Your task to perform on an android device: Open calendar and show me the fourth week of next month Image 0: 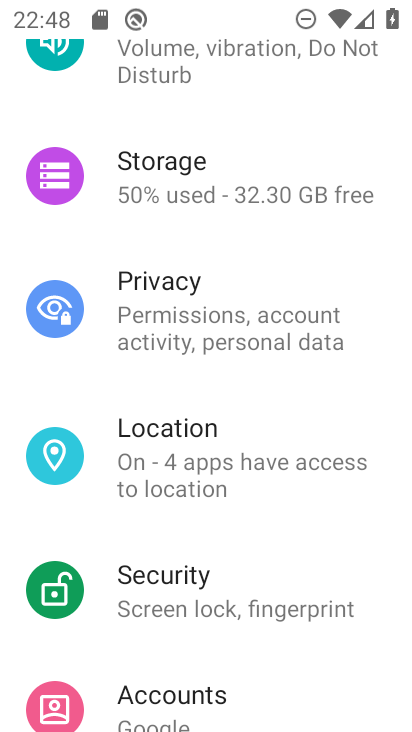
Step 0: press home button
Your task to perform on an android device: Open calendar and show me the fourth week of next month Image 1: 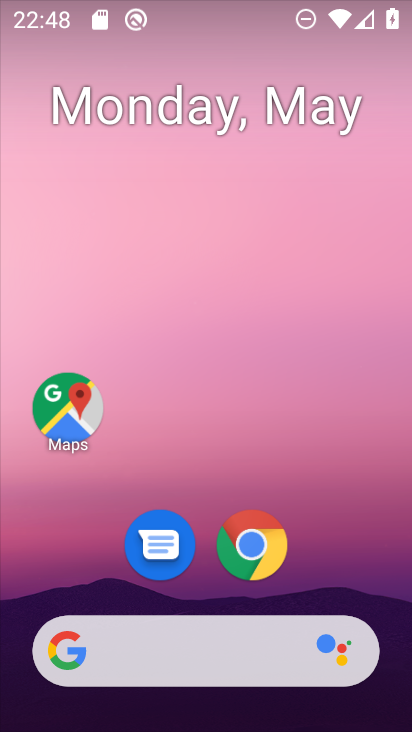
Step 1: drag from (331, 532) to (225, 105)
Your task to perform on an android device: Open calendar and show me the fourth week of next month Image 2: 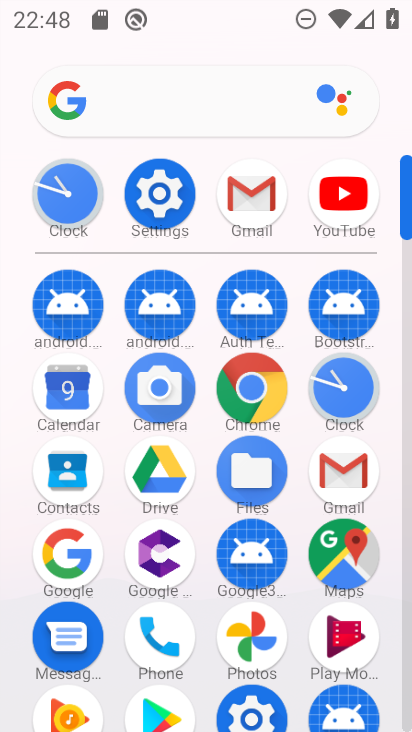
Step 2: click (60, 388)
Your task to perform on an android device: Open calendar and show me the fourth week of next month Image 3: 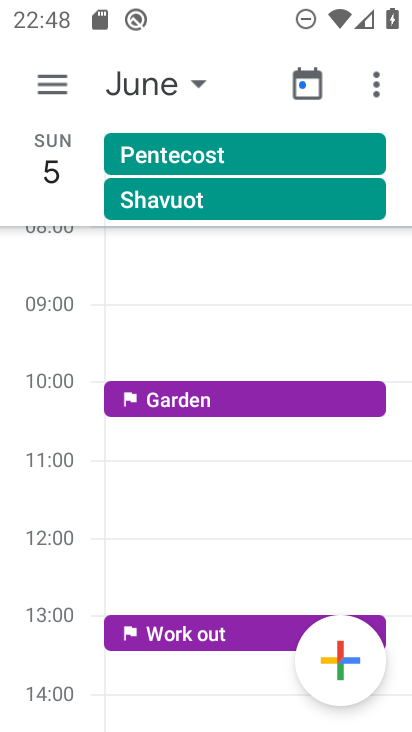
Step 3: click (54, 71)
Your task to perform on an android device: Open calendar and show me the fourth week of next month Image 4: 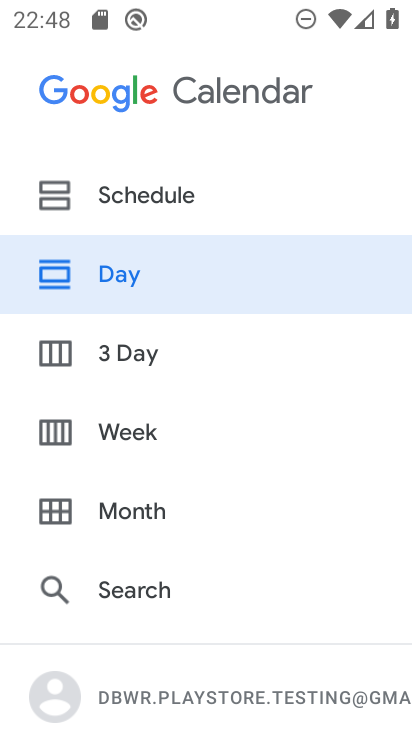
Step 4: click (117, 428)
Your task to perform on an android device: Open calendar and show me the fourth week of next month Image 5: 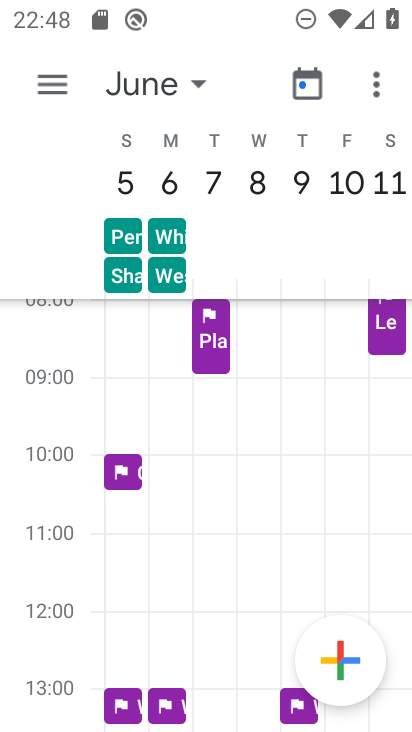
Step 5: click (195, 78)
Your task to perform on an android device: Open calendar and show me the fourth week of next month Image 6: 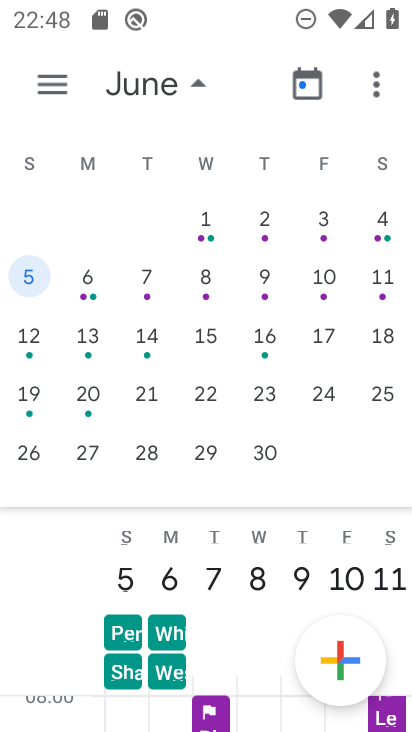
Step 6: click (146, 389)
Your task to perform on an android device: Open calendar and show me the fourth week of next month Image 7: 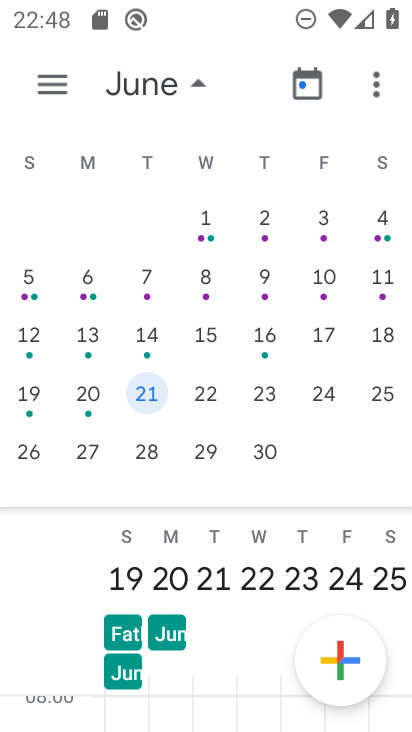
Step 7: task complete